Your task to perform on an android device: check android version Image 0: 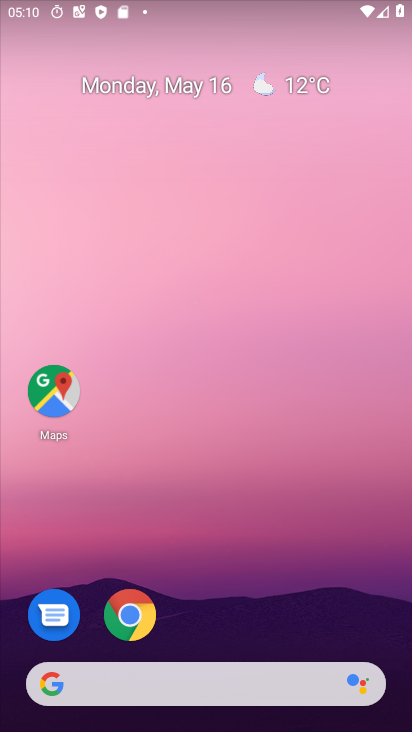
Step 0: drag from (291, 603) to (134, 48)
Your task to perform on an android device: check android version Image 1: 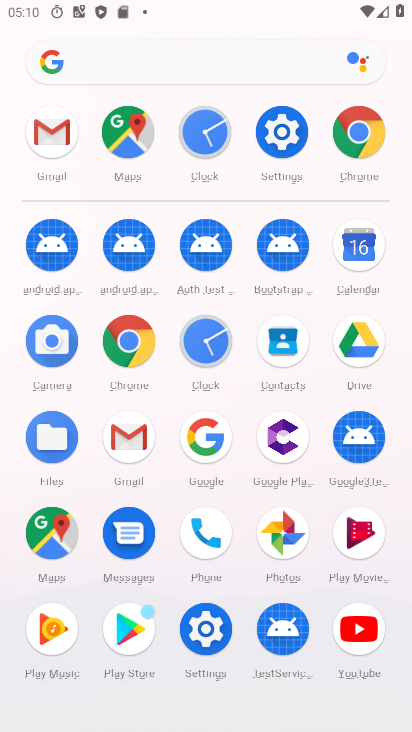
Step 1: drag from (237, 543) to (243, 106)
Your task to perform on an android device: check android version Image 2: 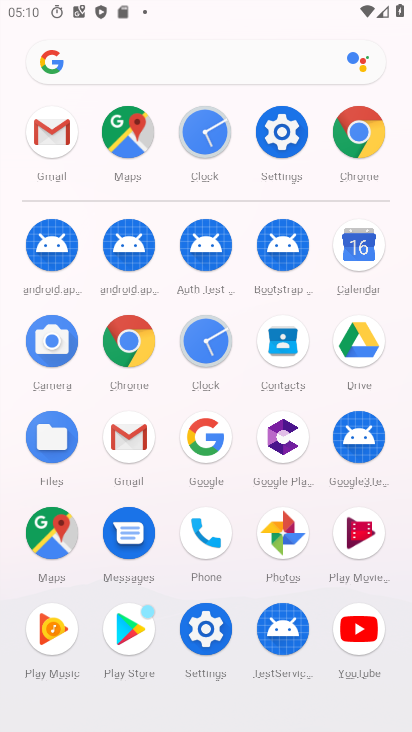
Step 2: click (207, 638)
Your task to perform on an android device: check android version Image 3: 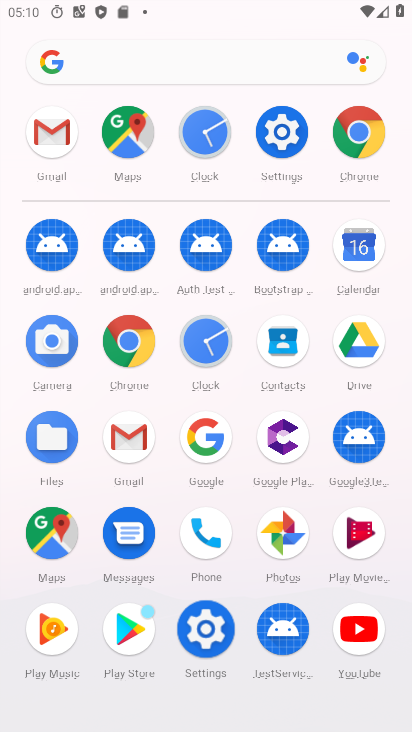
Step 3: click (207, 638)
Your task to perform on an android device: check android version Image 4: 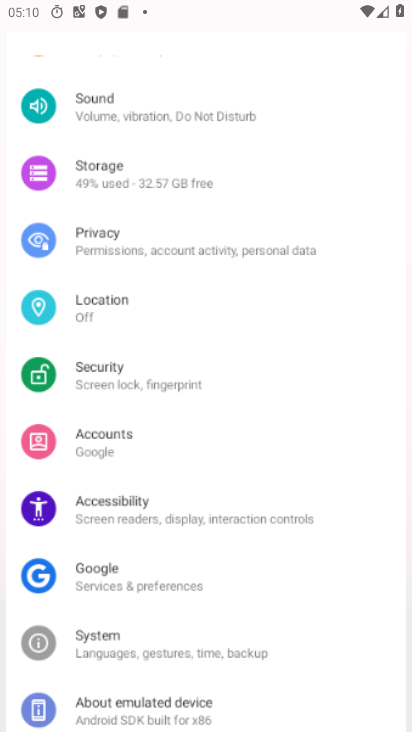
Step 4: click (207, 638)
Your task to perform on an android device: check android version Image 5: 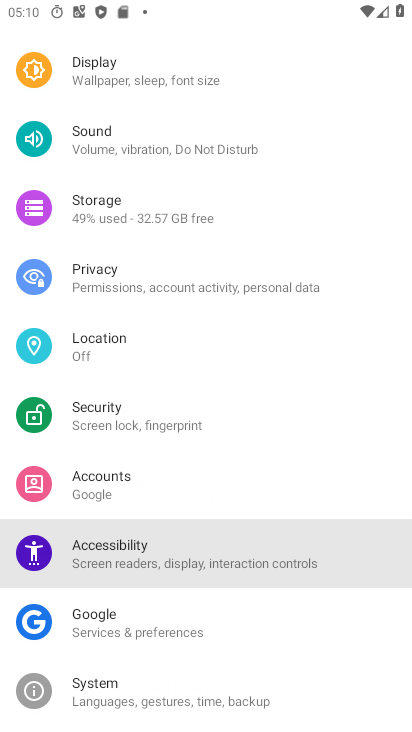
Step 5: click (209, 639)
Your task to perform on an android device: check android version Image 6: 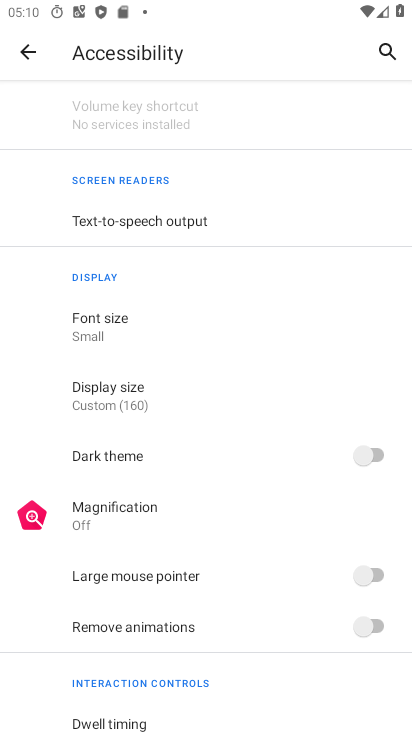
Step 6: drag from (214, 528) to (183, 0)
Your task to perform on an android device: check android version Image 7: 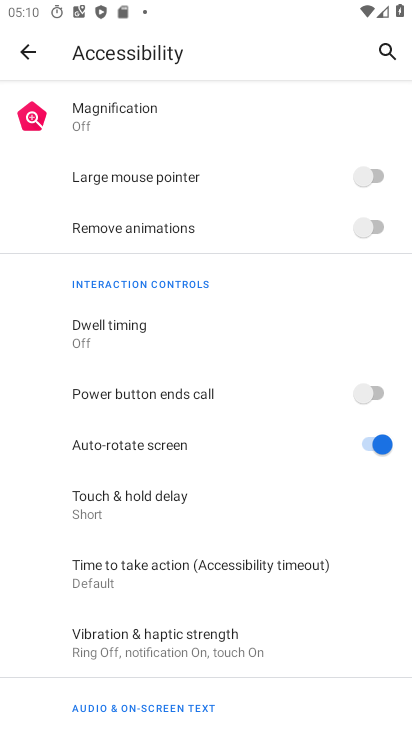
Step 7: drag from (257, 510) to (253, 92)
Your task to perform on an android device: check android version Image 8: 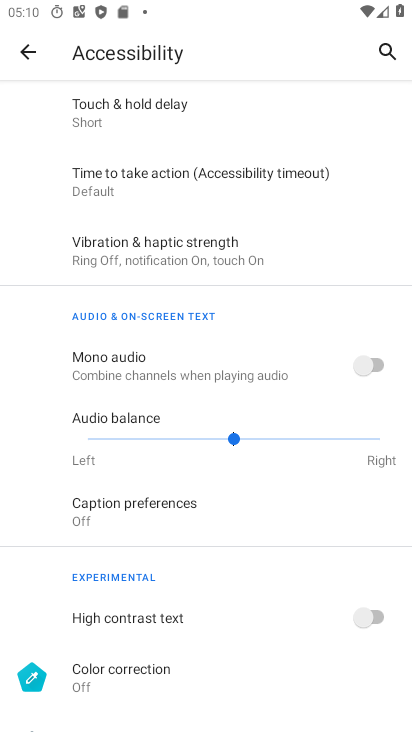
Step 8: drag from (272, 553) to (266, 117)
Your task to perform on an android device: check android version Image 9: 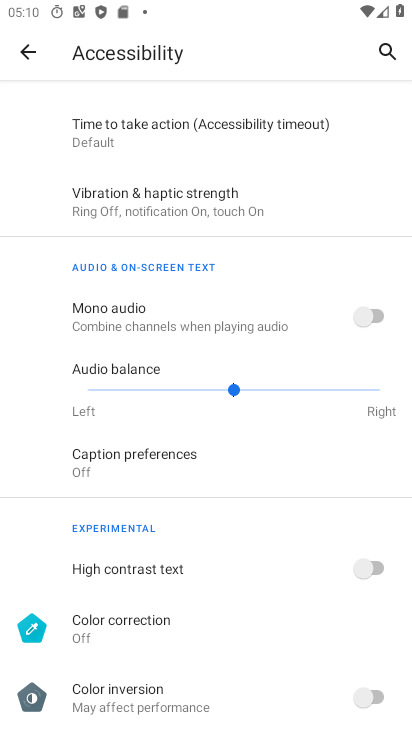
Step 9: click (22, 49)
Your task to perform on an android device: check android version Image 10: 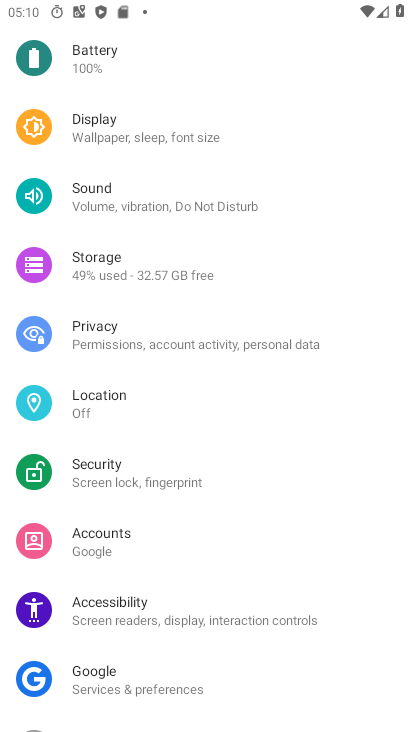
Step 10: drag from (169, 469) to (137, 14)
Your task to perform on an android device: check android version Image 11: 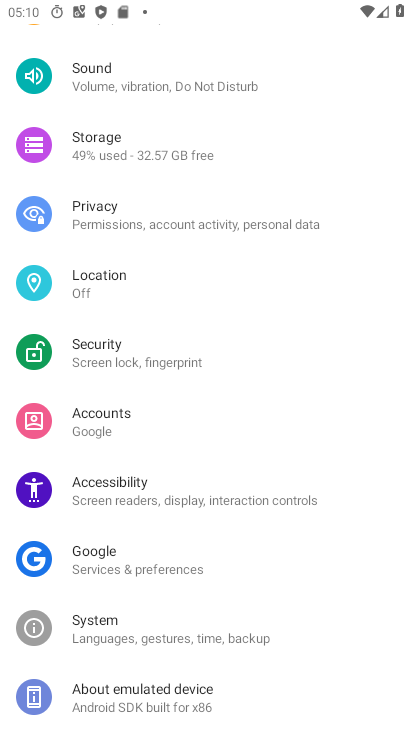
Step 11: click (145, 692)
Your task to perform on an android device: check android version Image 12: 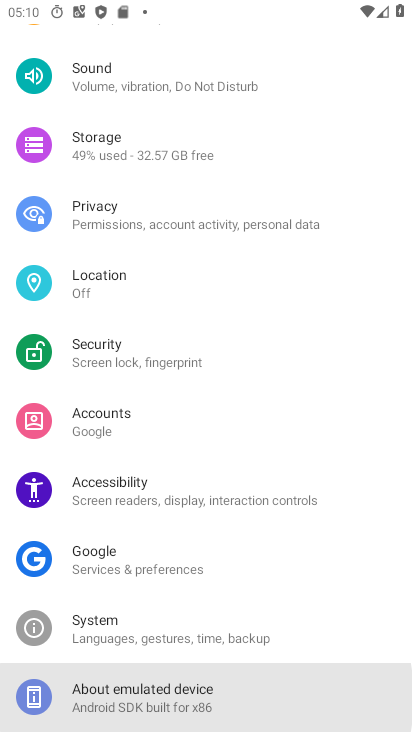
Step 12: click (145, 692)
Your task to perform on an android device: check android version Image 13: 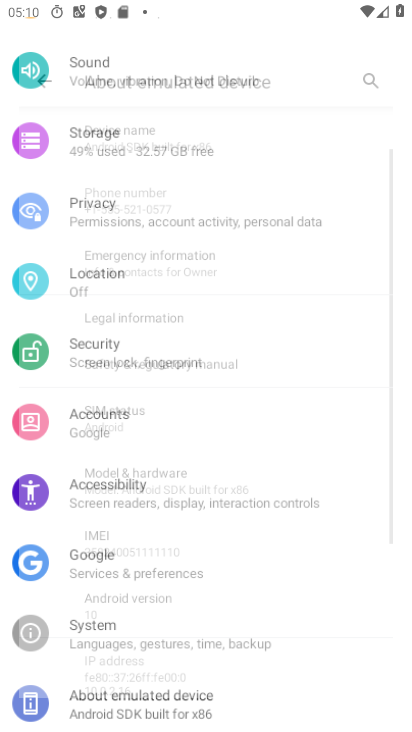
Step 13: click (145, 693)
Your task to perform on an android device: check android version Image 14: 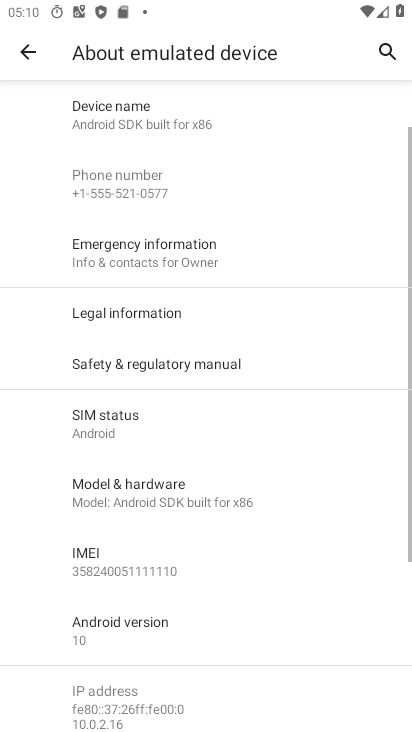
Step 14: task complete